Your task to perform on an android device: set the timer Image 0: 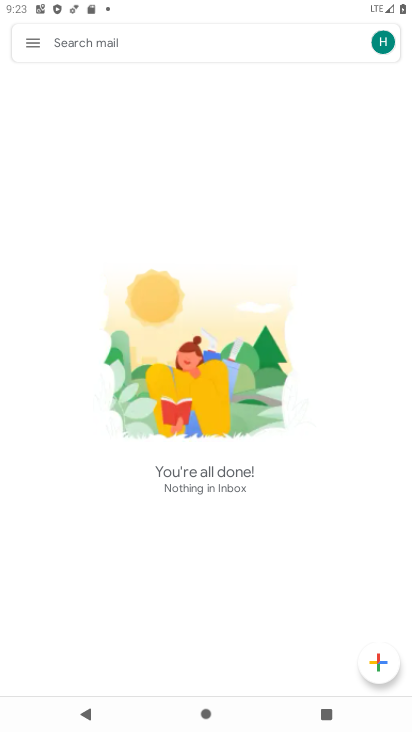
Step 0: press home button
Your task to perform on an android device: set the timer Image 1: 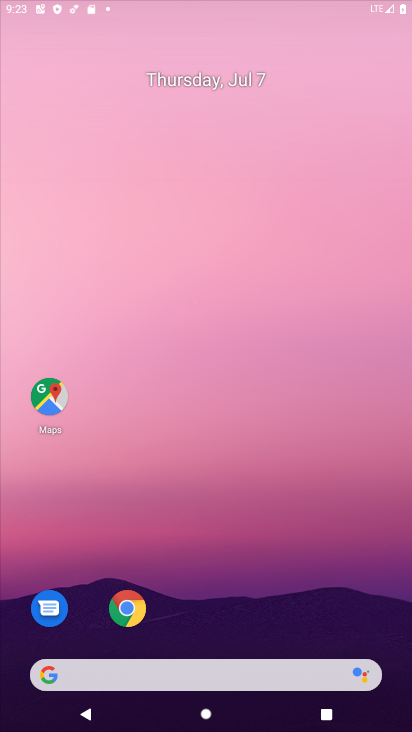
Step 1: drag from (241, 627) to (275, 132)
Your task to perform on an android device: set the timer Image 2: 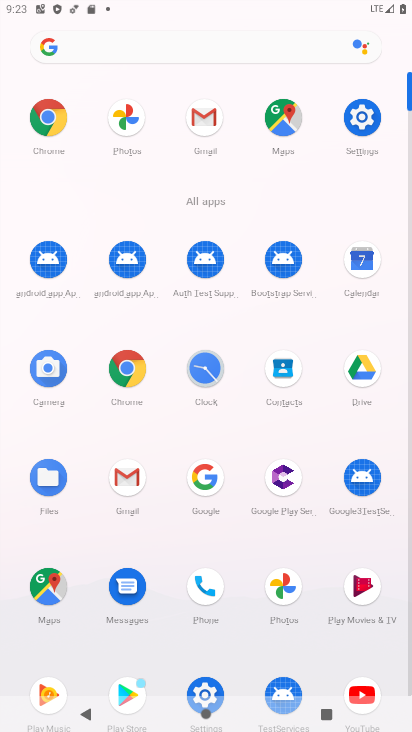
Step 2: click (205, 365)
Your task to perform on an android device: set the timer Image 3: 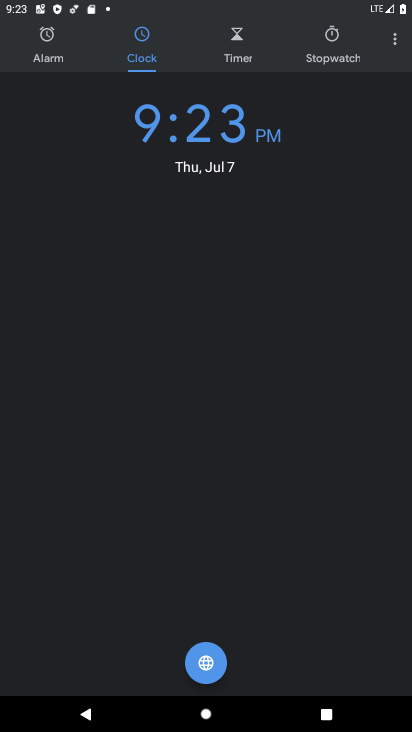
Step 3: click (235, 44)
Your task to perform on an android device: set the timer Image 4: 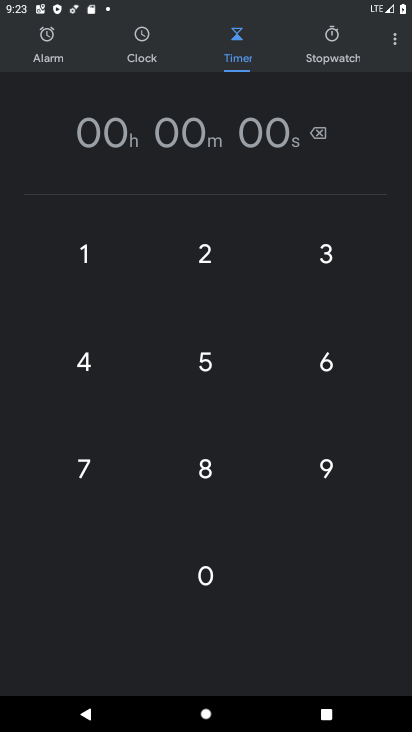
Step 4: click (219, 240)
Your task to perform on an android device: set the timer Image 5: 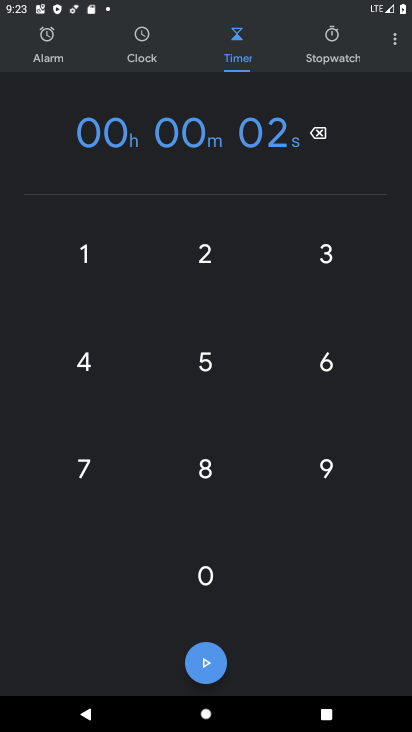
Step 5: click (219, 240)
Your task to perform on an android device: set the timer Image 6: 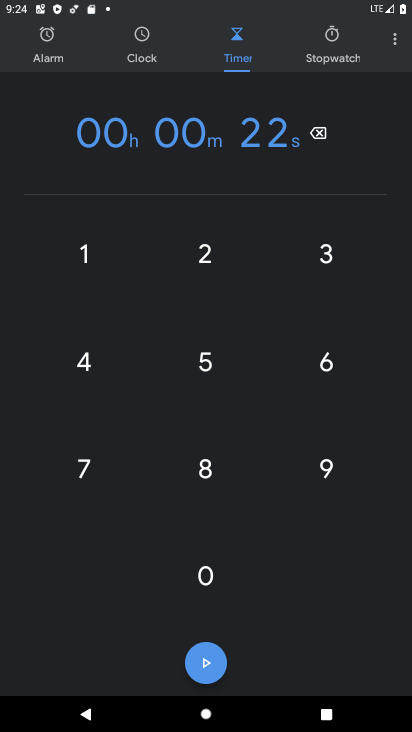
Step 6: task complete